Your task to perform on an android device: Go to privacy settings Image 0: 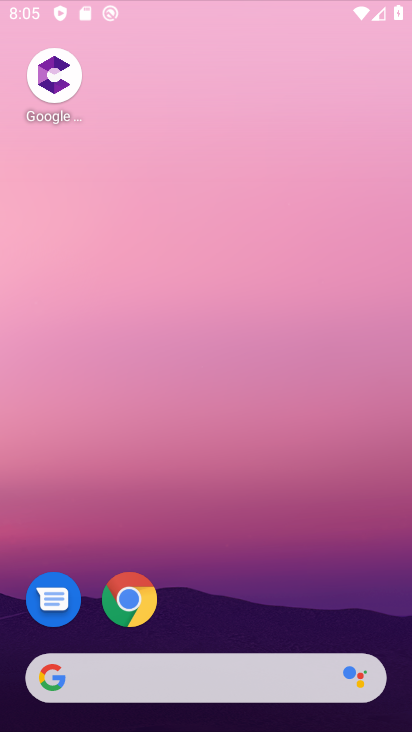
Step 0: click (270, 208)
Your task to perform on an android device: Go to privacy settings Image 1: 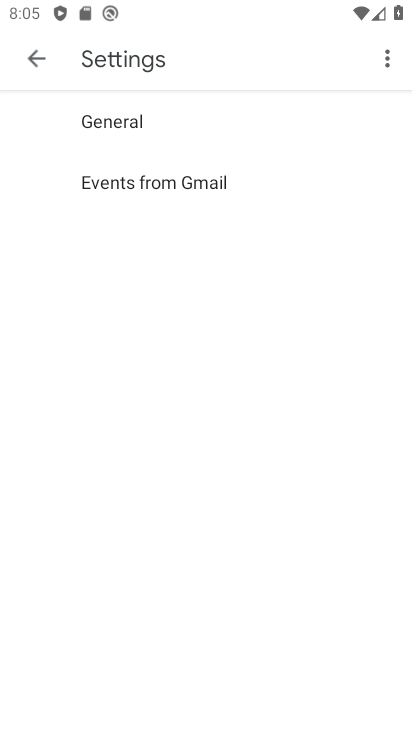
Step 1: click (32, 56)
Your task to perform on an android device: Go to privacy settings Image 2: 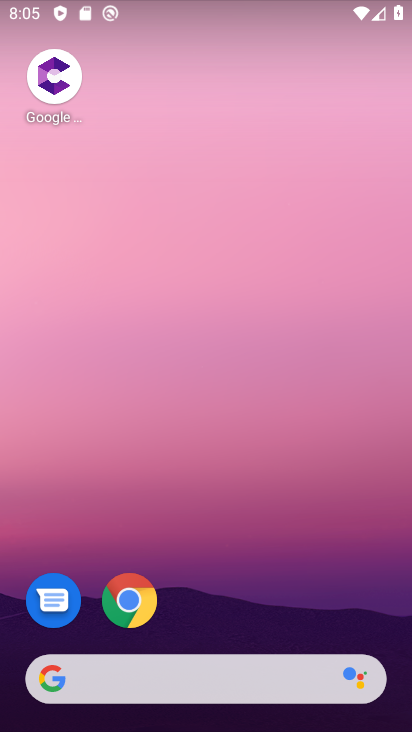
Step 2: drag from (207, 707) to (240, 179)
Your task to perform on an android device: Go to privacy settings Image 3: 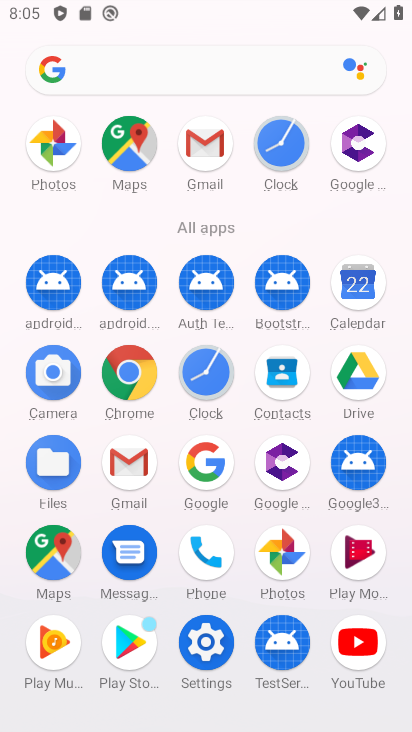
Step 3: click (221, 638)
Your task to perform on an android device: Go to privacy settings Image 4: 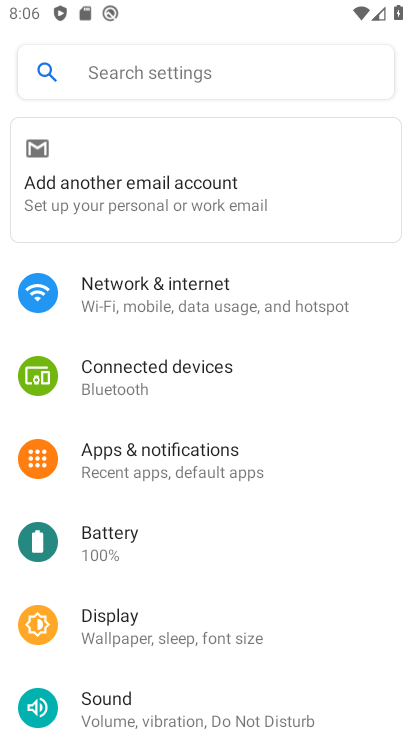
Step 4: drag from (162, 570) to (399, 131)
Your task to perform on an android device: Go to privacy settings Image 5: 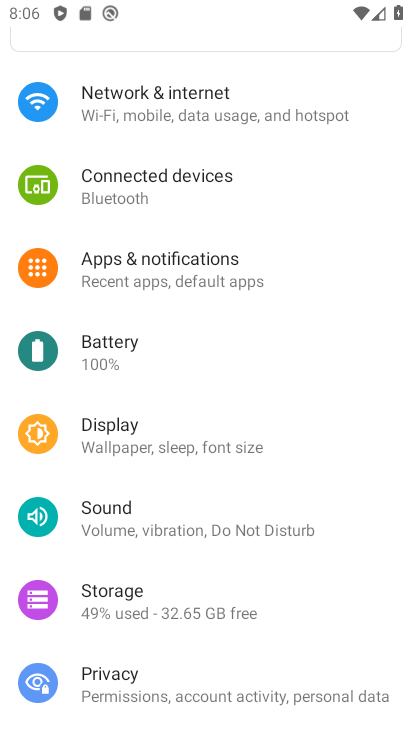
Step 5: click (197, 686)
Your task to perform on an android device: Go to privacy settings Image 6: 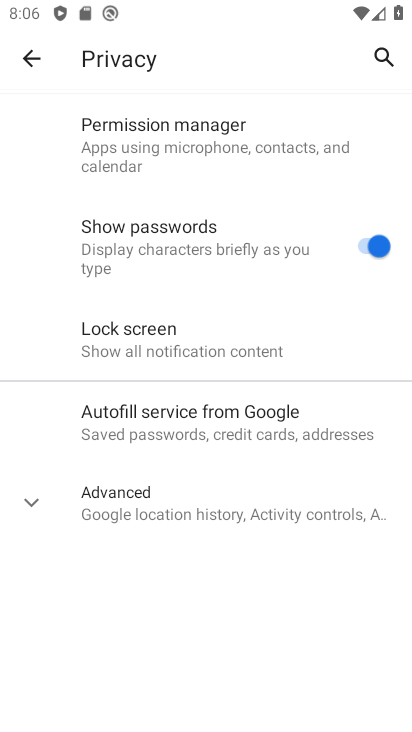
Step 6: click (169, 508)
Your task to perform on an android device: Go to privacy settings Image 7: 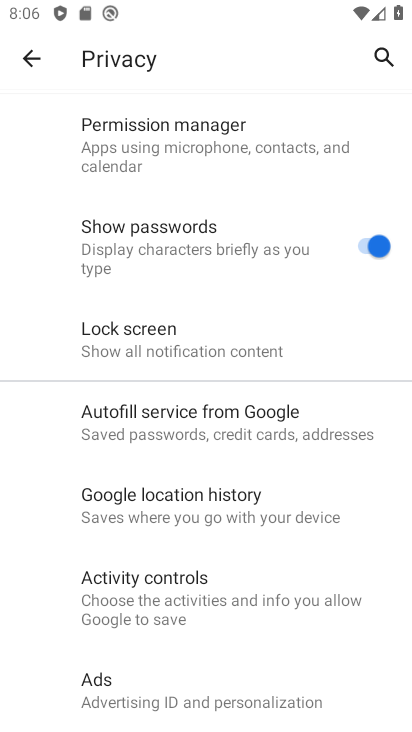
Step 7: task complete